Your task to perform on an android device: empty trash in the gmail app Image 0: 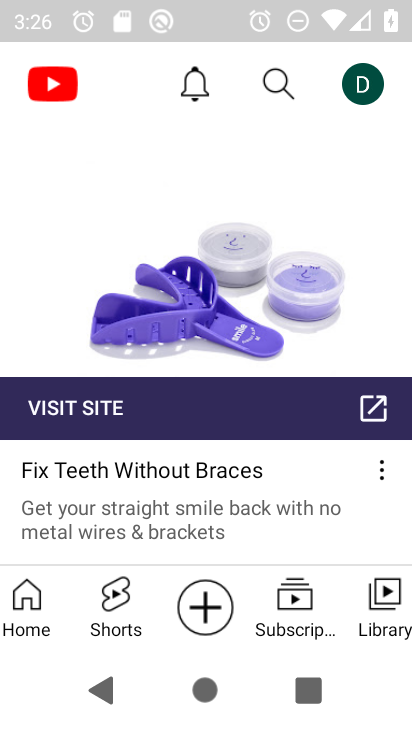
Step 0: press home button
Your task to perform on an android device: empty trash in the gmail app Image 1: 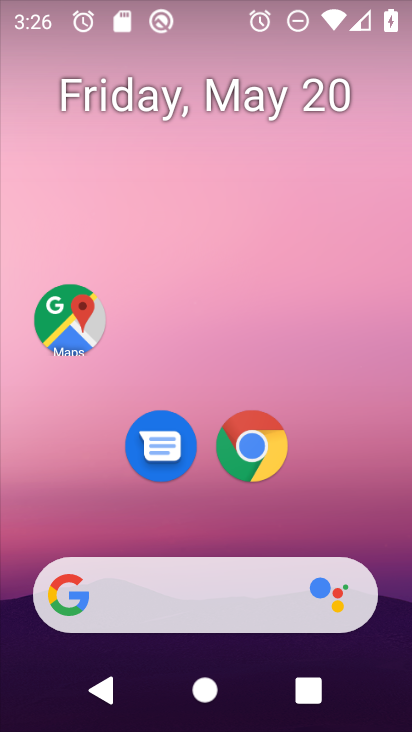
Step 1: drag from (373, 538) to (342, 0)
Your task to perform on an android device: empty trash in the gmail app Image 2: 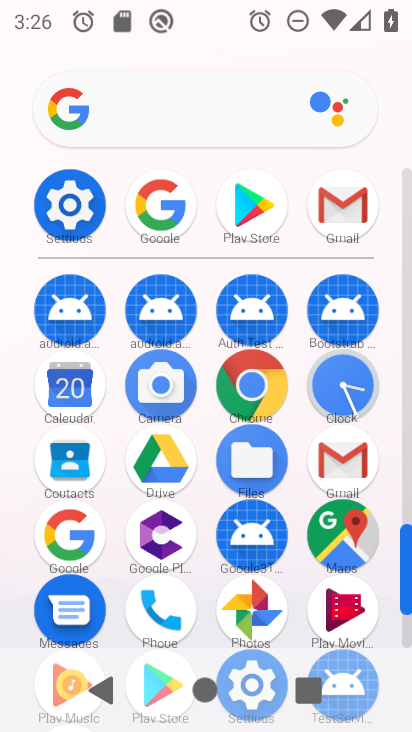
Step 2: click (332, 201)
Your task to perform on an android device: empty trash in the gmail app Image 3: 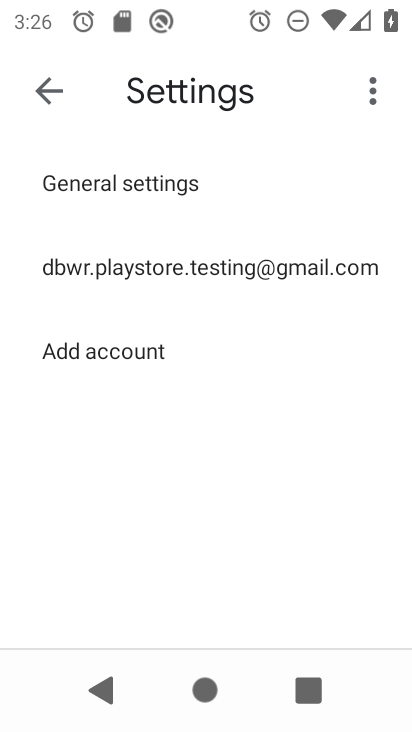
Step 3: click (40, 93)
Your task to perform on an android device: empty trash in the gmail app Image 4: 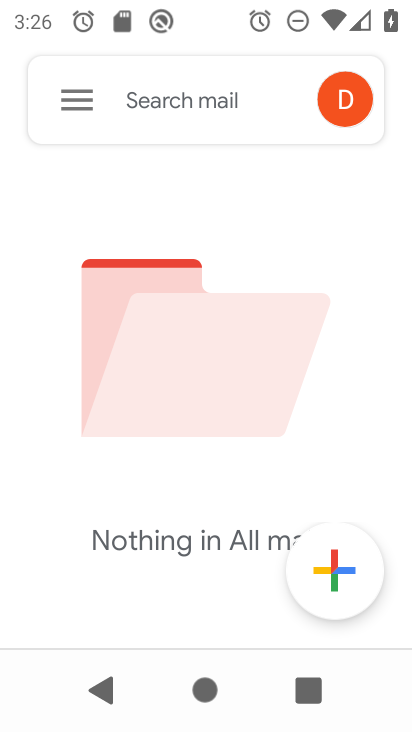
Step 4: click (79, 97)
Your task to perform on an android device: empty trash in the gmail app Image 5: 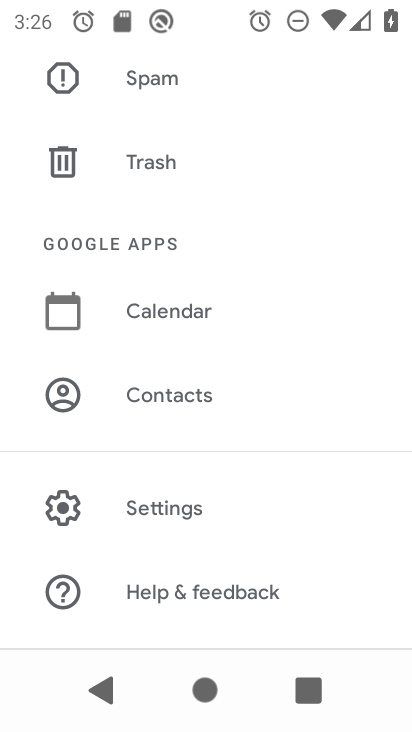
Step 5: click (135, 173)
Your task to perform on an android device: empty trash in the gmail app Image 6: 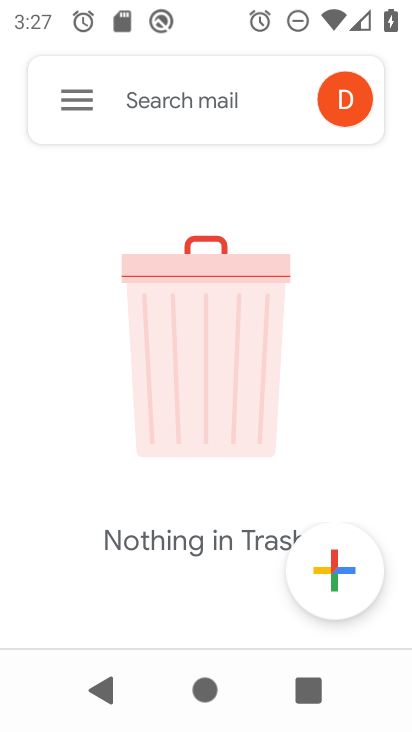
Step 6: task complete